Your task to perform on an android device: What's the weather today? Image 0: 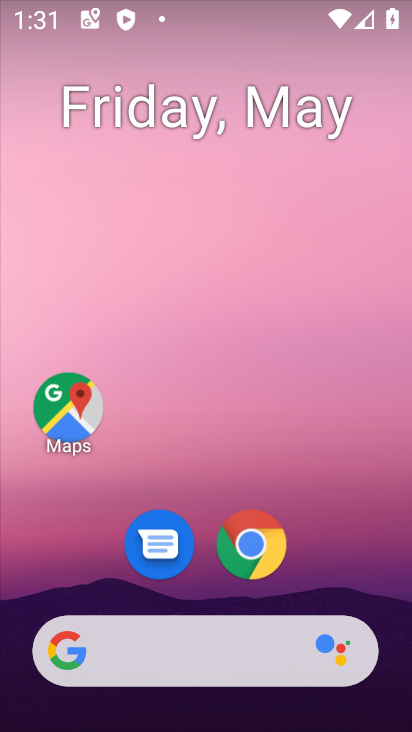
Step 0: drag from (209, 495) to (165, 182)
Your task to perform on an android device: What's the weather today? Image 1: 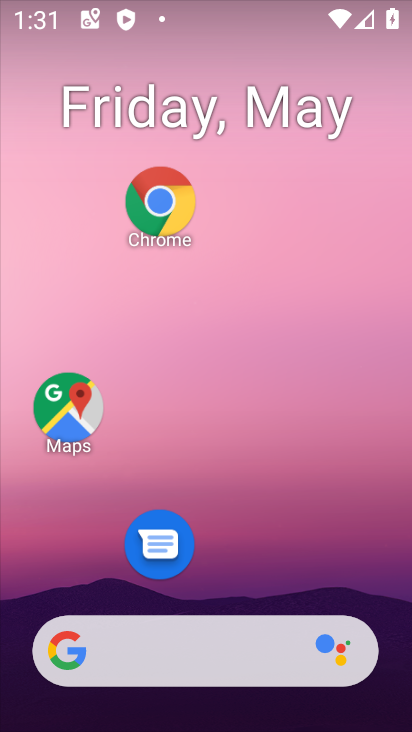
Step 1: drag from (249, 518) to (246, 60)
Your task to perform on an android device: What's the weather today? Image 2: 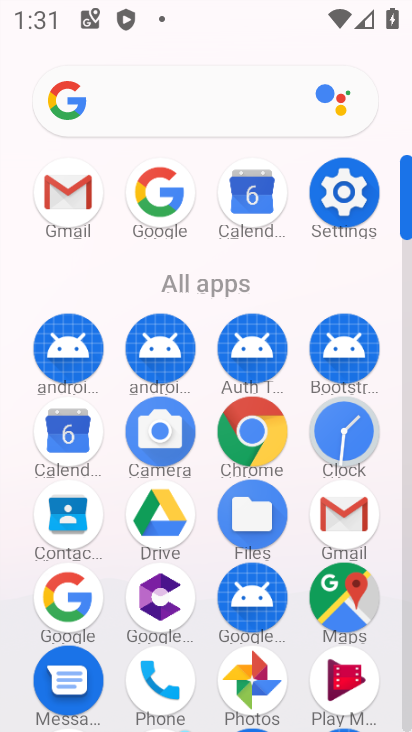
Step 2: drag from (205, 286) to (206, 157)
Your task to perform on an android device: What's the weather today? Image 3: 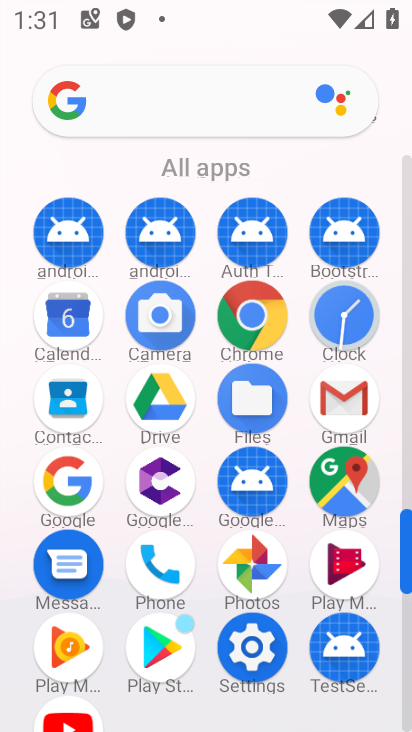
Step 3: drag from (203, 171) to (221, 408)
Your task to perform on an android device: What's the weather today? Image 4: 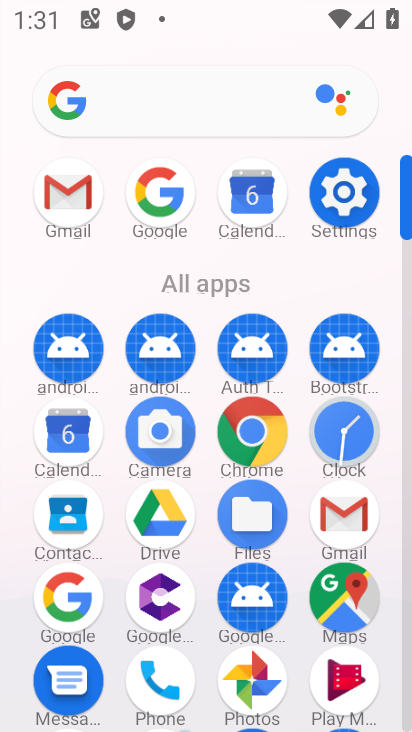
Step 4: click (152, 194)
Your task to perform on an android device: What's the weather today? Image 5: 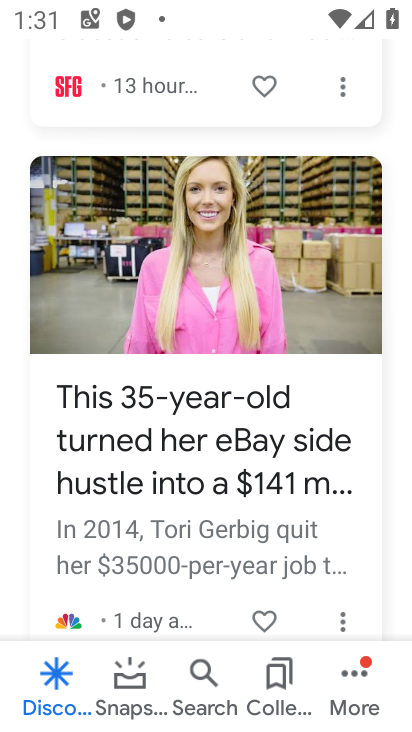
Step 5: drag from (153, 195) to (287, 604)
Your task to perform on an android device: What's the weather today? Image 6: 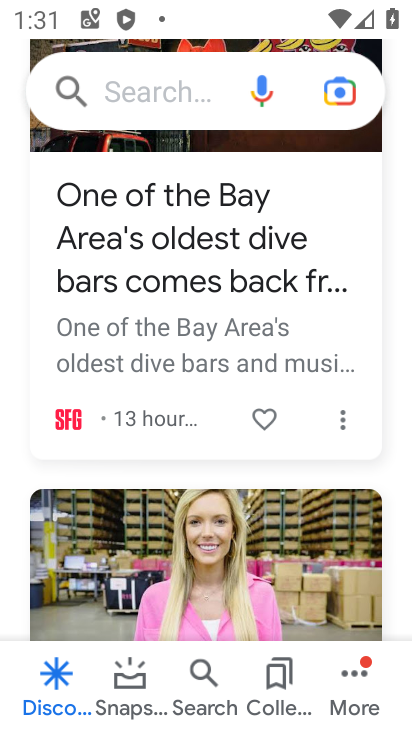
Step 6: drag from (229, 256) to (270, 613)
Your task to perform on an android device: What's the weather today? Image 7: 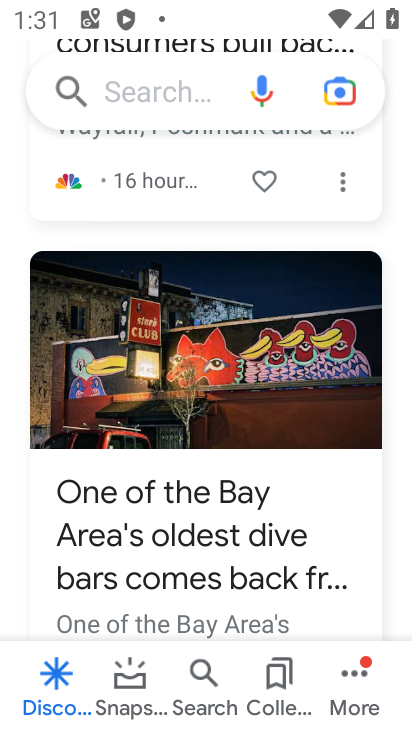
Step 7: drag from (224, 299) to (232, 625)
Your task to perform on an android device: What's the weather today? Image 8: 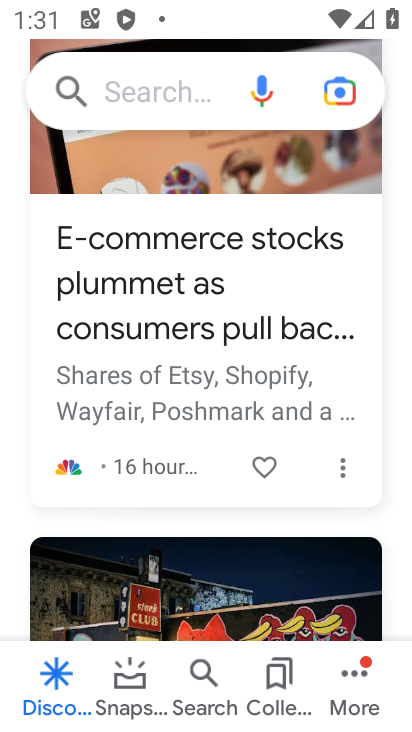
Step 8: drag from (193, 288) to (217, 567)
Your task to perform on an android device: What's the weather today? Image 9: 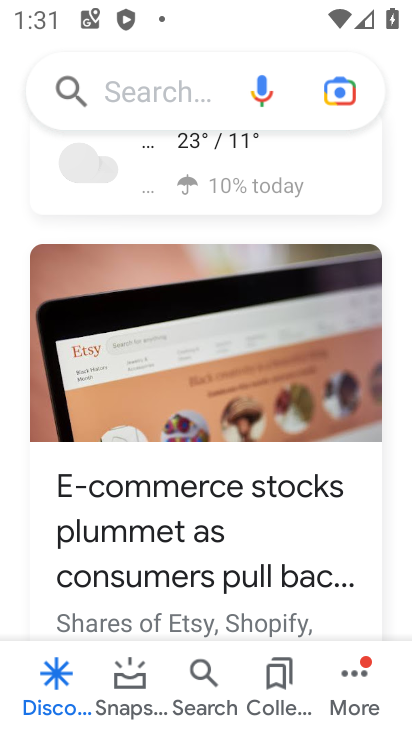
Step 9: drag from (205, 262) to (218, 438)
Your task to perform on an android device: What's the weather today? Image 10: 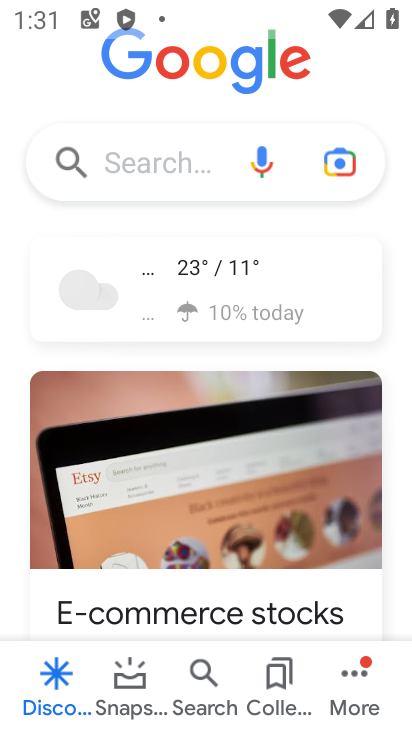
Step 10: click (207, 314)
Your task to perform on an android device: What's the weather today? Image 11: 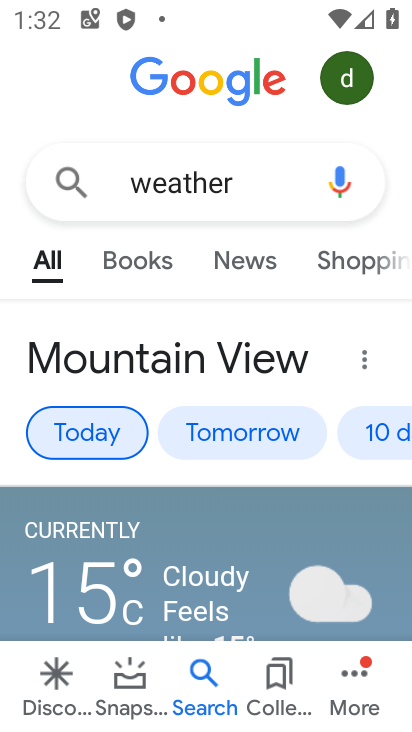
Step 11: task complete